Your task to perform on an android device: clear all cookies in the chrome app Image 0: 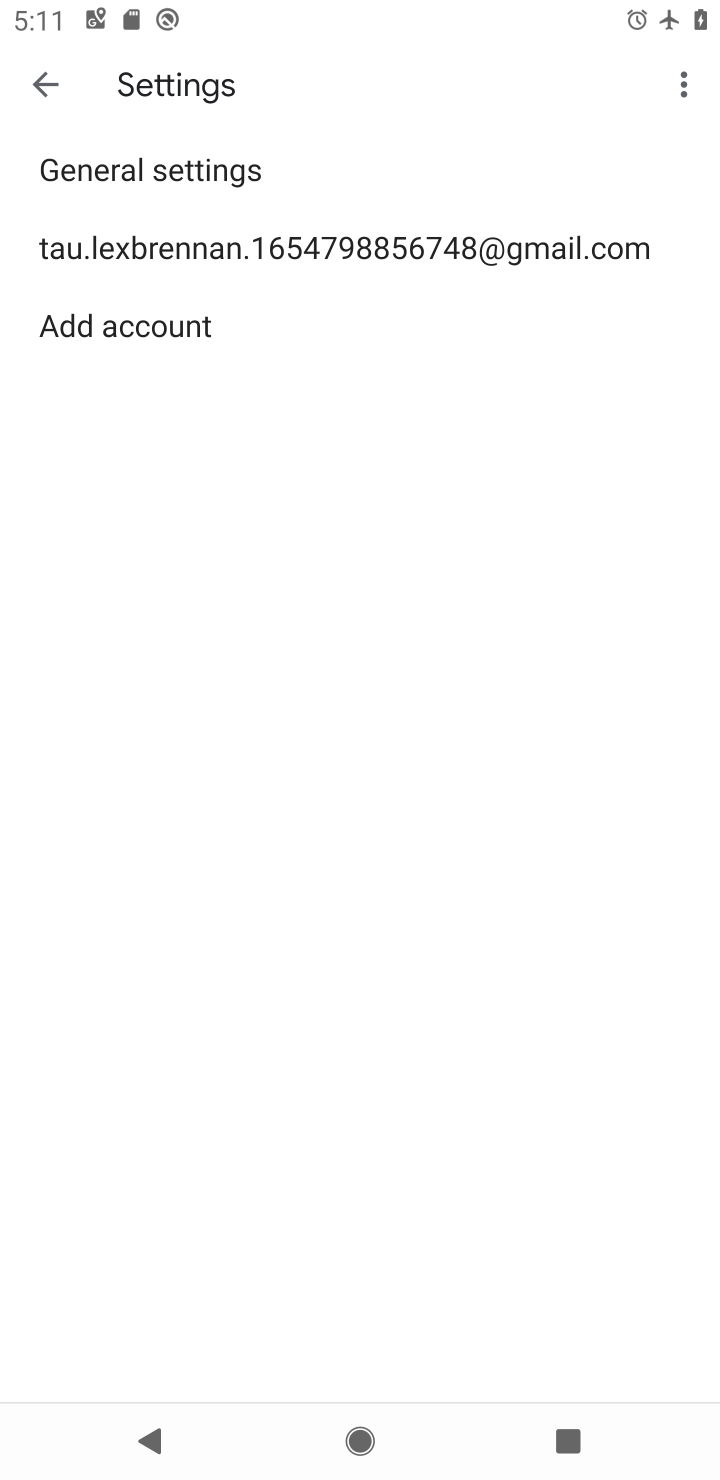
Step 0: press home button
Your task to perform on an android device: clear all cookies in the chrome app Image 1: 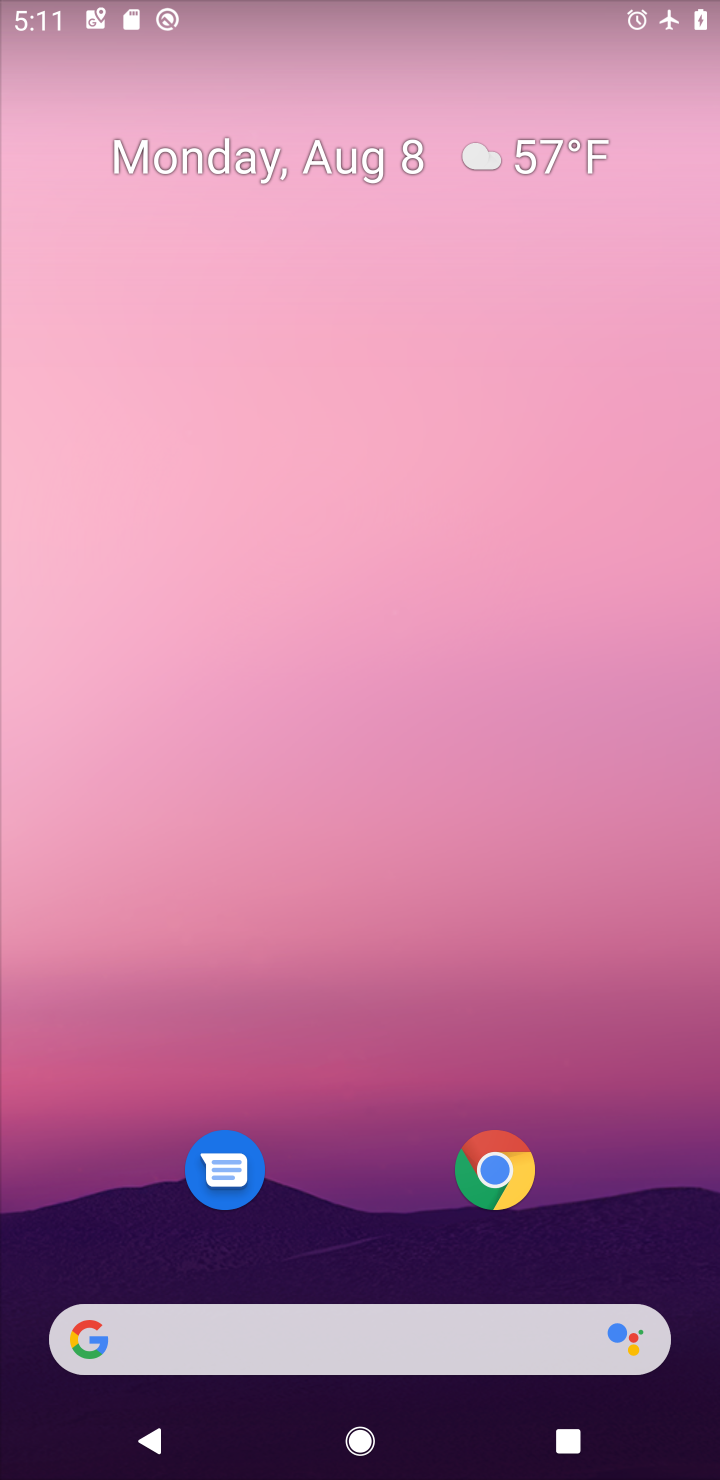
Step 1: click (513, 1177)
Your task to perform on an android device: clear all cookies in the chrome app Image 2: 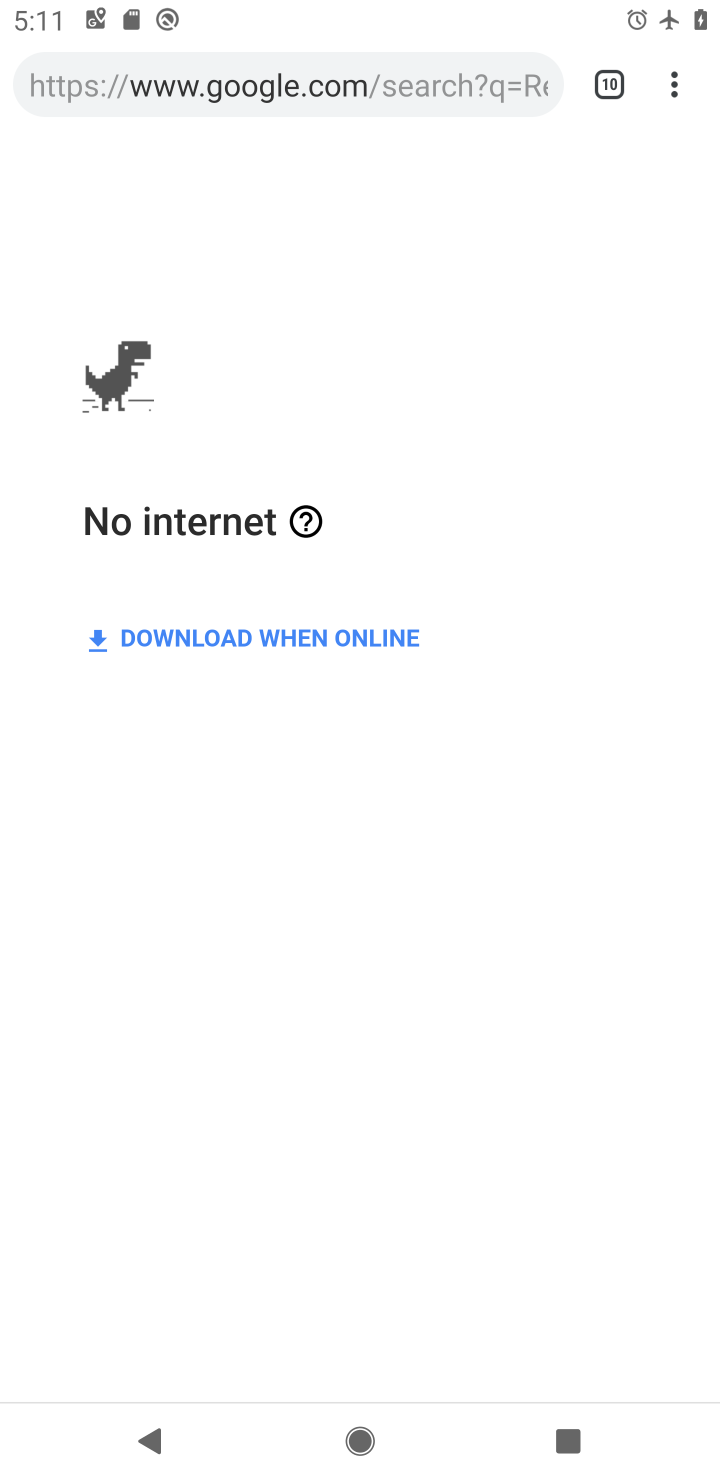
Step 2: click (680, 91)
Your task to perform on an android device: clear all cookies in the chrome app Image 3: 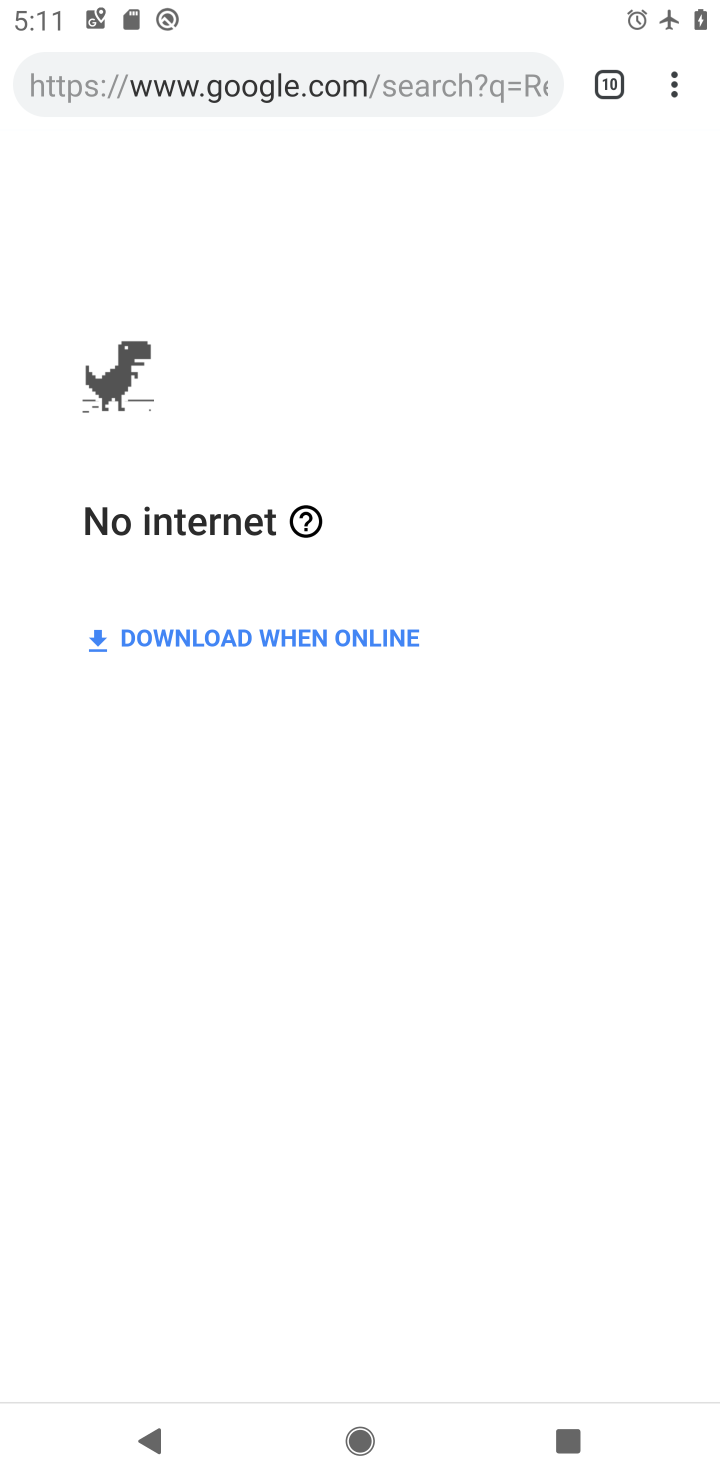
Step 3: task complete